Your task to perform on an android device: When is my next appointment? Image 0: 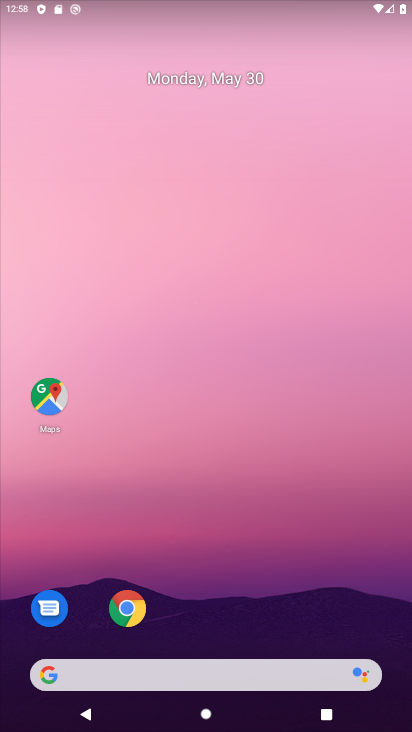
Step 0: drag from (214, 630) to (281, 255)
Your task to perform on an android device: When is my next appointment? Image 1: 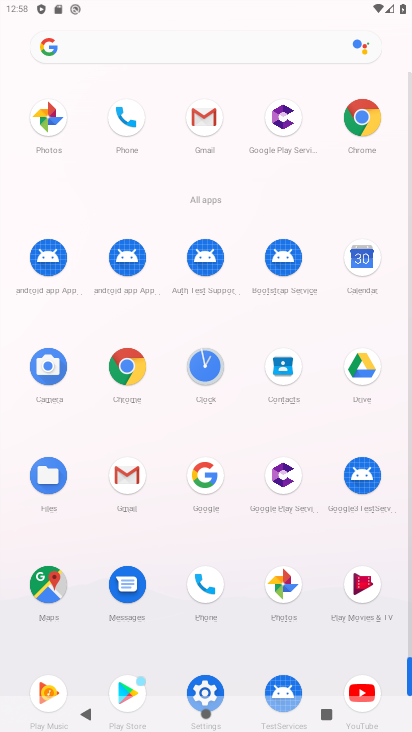
Step 1: click (361, 258)
Your task to perform on an android device: When is my next appointment? Image 2: 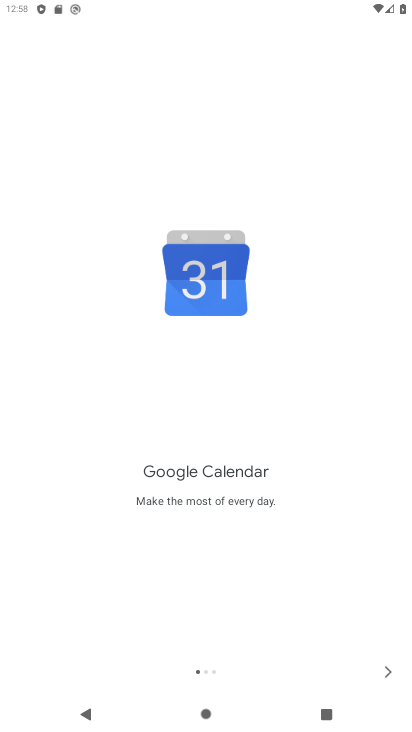
Step 2: click (390, 674)
Your task to perform on an android device: When is my next appointment? Image 3: 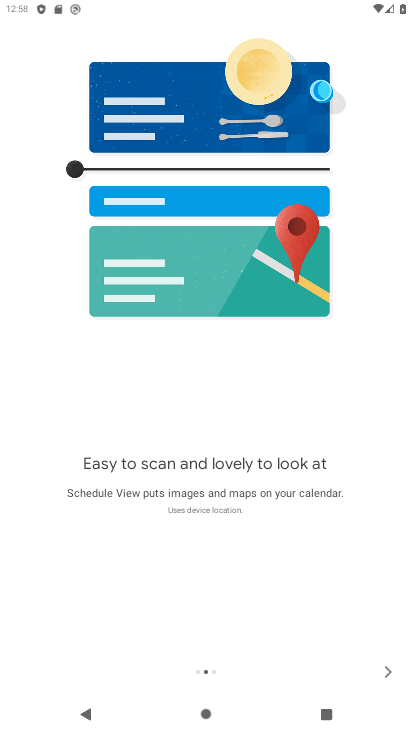
Step 3: click (389, 666)
Your task to perform on an android device: When is my next appointment? Image 4: 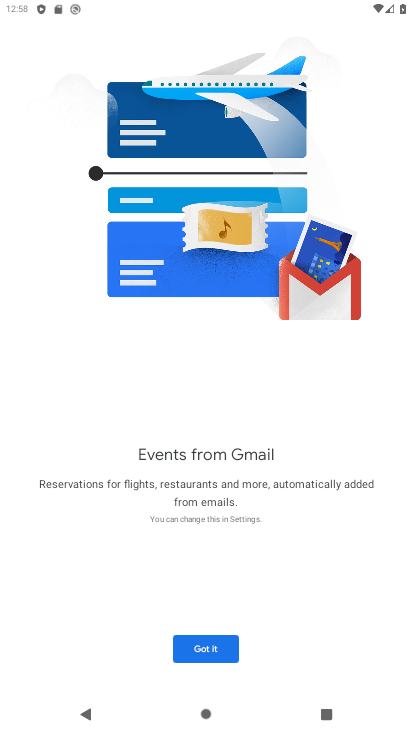
Step 4: click (232, 659)
Your task to perform on an android device: When is my next appointment? Image 5: 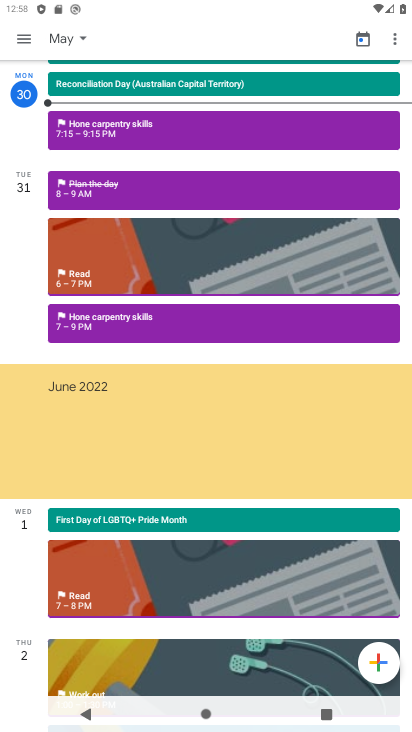
Step 5: click (78, 41)
Your task to perform on an android device: When is my next appointment? Image 6: 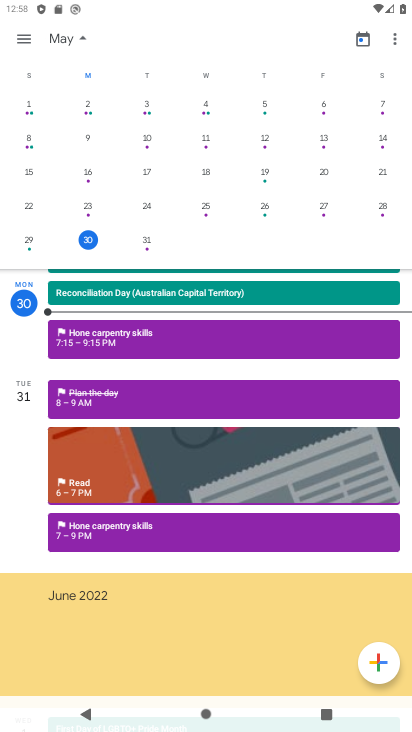
Step 6: click (138, 235)
Your task to perform on an android device: When is my next appointment? Image 7: 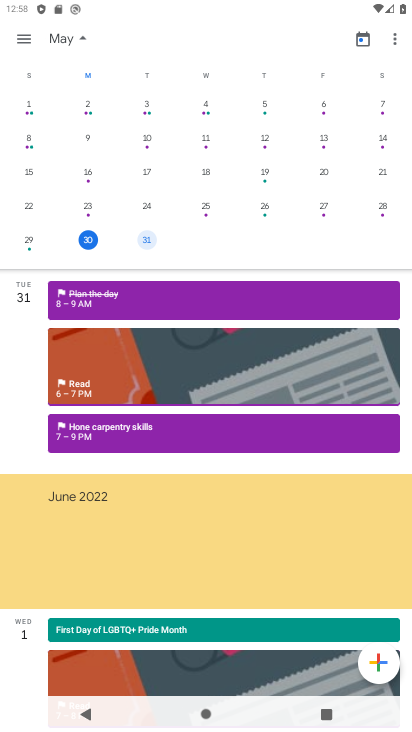
Step 7: drag from (371, 208) to (42, 210)
Your task to perform on an android device: When is my next appointment? Image 8: 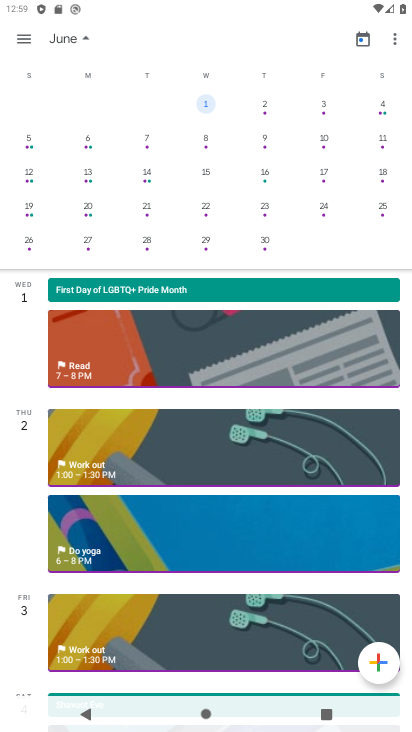
Step 8: click (249, 100)
Your task to perform on an android device: When is my next appointment? Image 9: 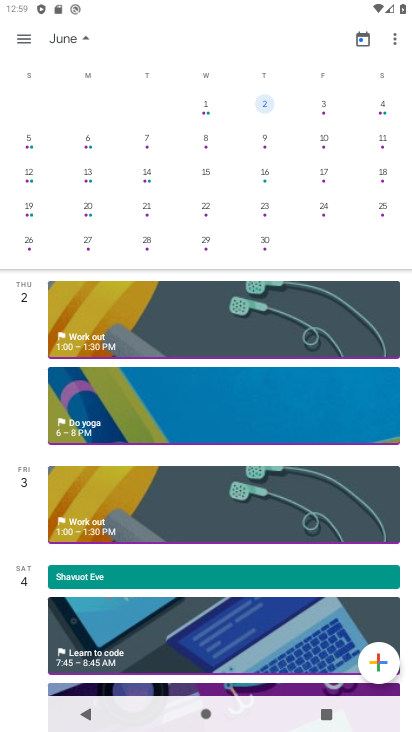
Step 9: click (320, 97)
Your task to perform on an android device: When is my next appointment? Image 10: 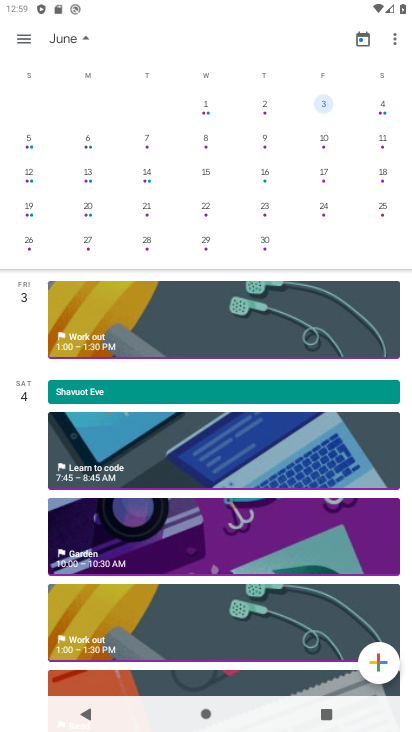
Step 10: click (377, 99)
Your task to perform on an android device: When is my next appointment? Image 11: 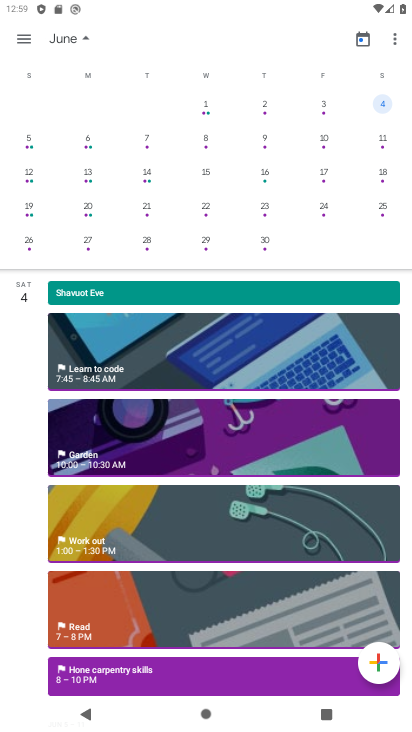
Step 11: task complete